Your task to perform on an android device: Go to internet settings Image 0: 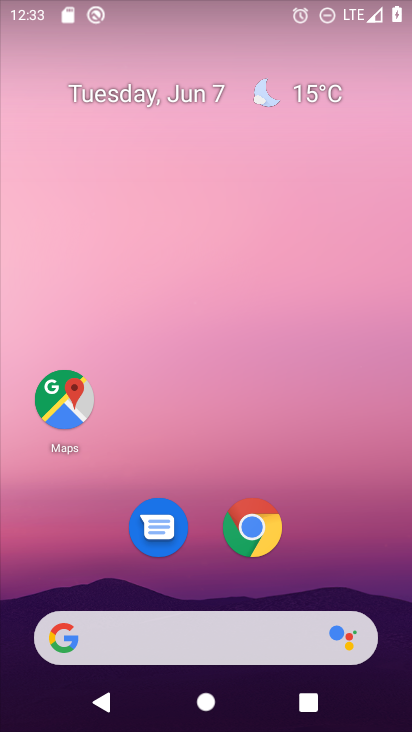
Step 0: drag from (339, 567) to (384, 132)
Your task to perform on an android device: Go to internet settings Image 1: 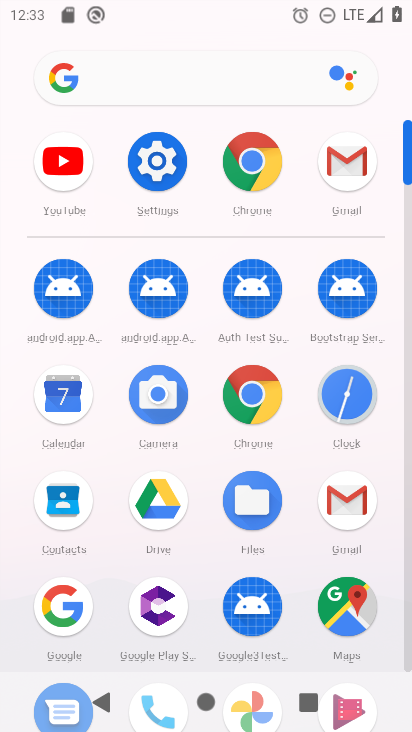
Step 1: click (145, 182)
Your task to perform on an android device: Go to internet settings Image 2: 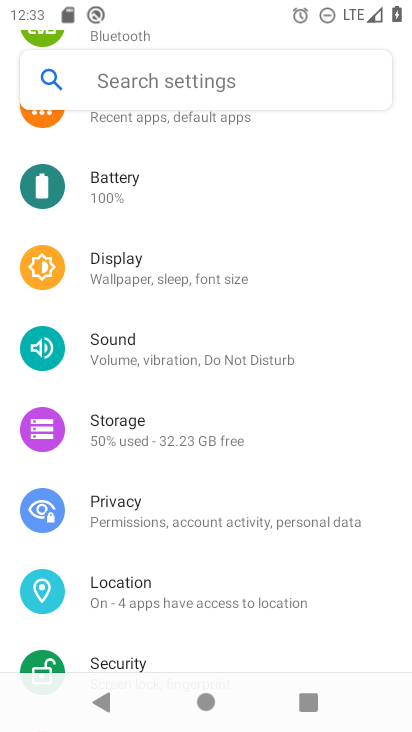
Step 2: drag from (342, 311) to (353, 456)
Your task to perform on an android device: Go to internet settings Image 3: 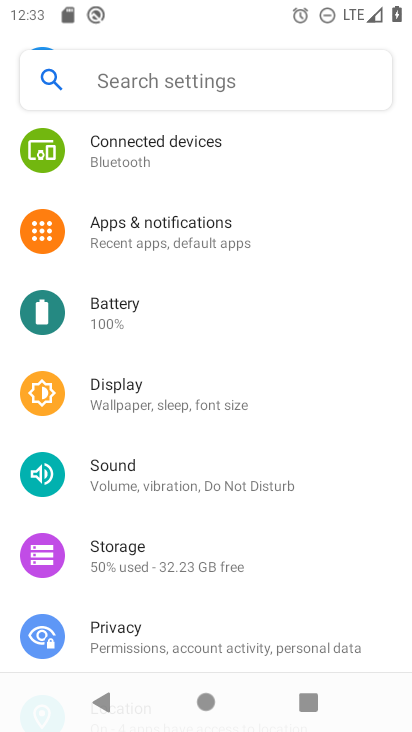
Step 3: drag from (343, 242) to (341, 466)
Your task to perform on an android device: Go to internet settings Image 4: 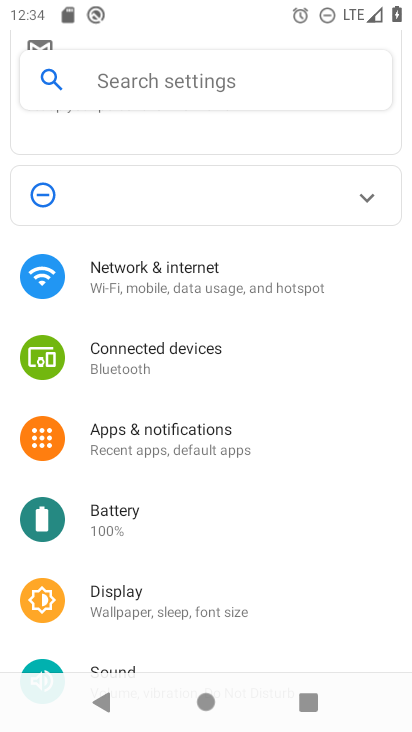
Step 4: drag from (314, 247) to (331, 483)
Your task to perform on an android device: Go to internet settings Image 5: 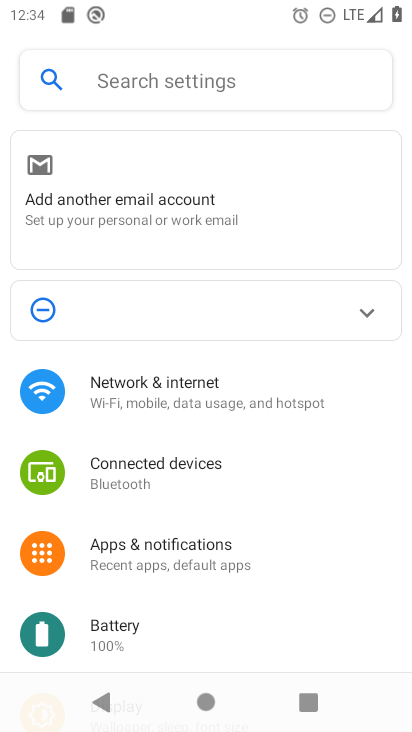
Step 5: click (249, 394)
Your task to perform on an android device: Go to internet settings Image 6: 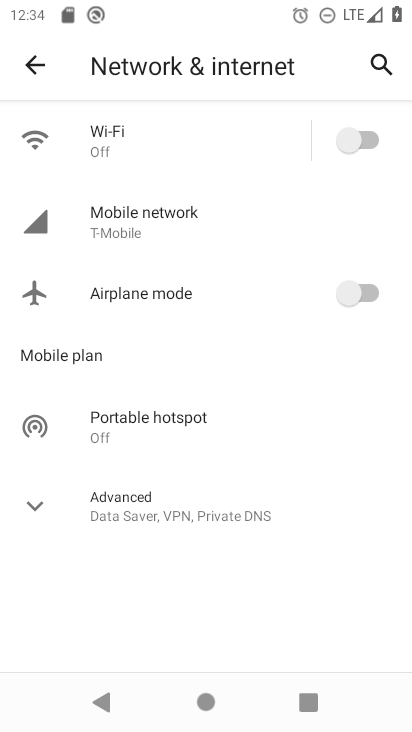
Step 6: task complete